Your task to perform on an android device: change alarm snooze length Image 0: 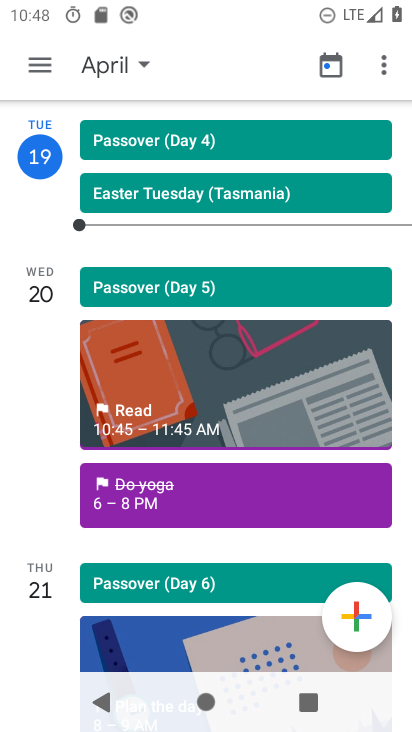
Step 0: press home button
Your task to perform on an android device: change alarm snooze length Image 1: 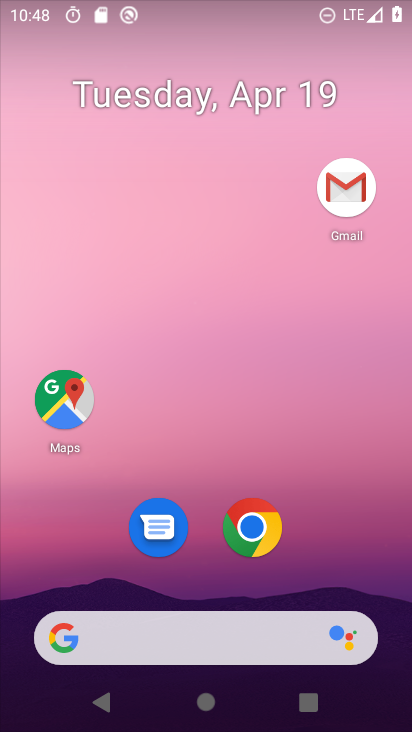
Step 1: drag from (342, 506) to (303, 31)
Your task to perform on an android device: change alarm snooze length Image 2: 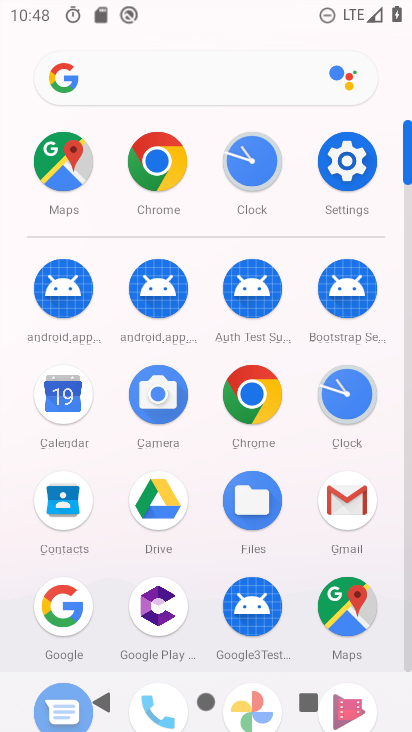
Step 2: click (343, 404)
Your task to perform on an android device: change alarm snooze length Image 3: 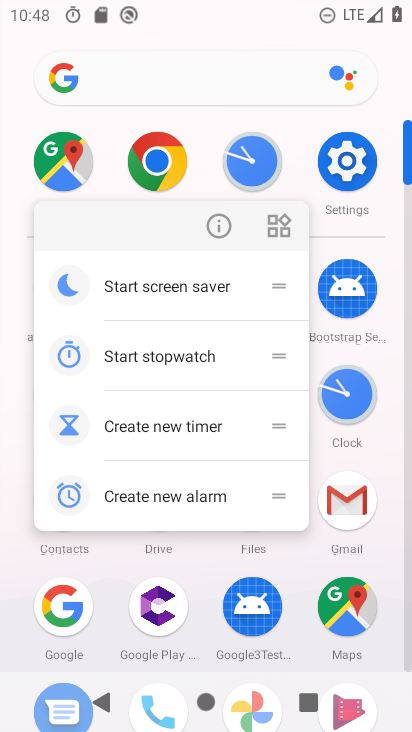
Step 3: click (343, 404)
Your task to perform on an android device: change alarm snooze length Image 4: 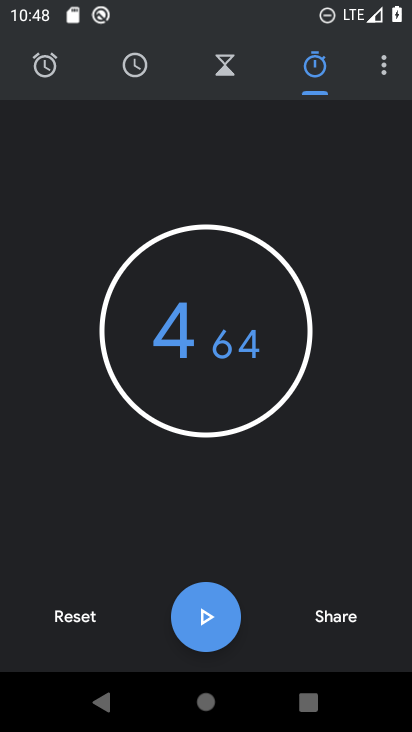
Step 4: click (387, 68)
Your task to perform on an android device: change alarm snooze length Image 5: 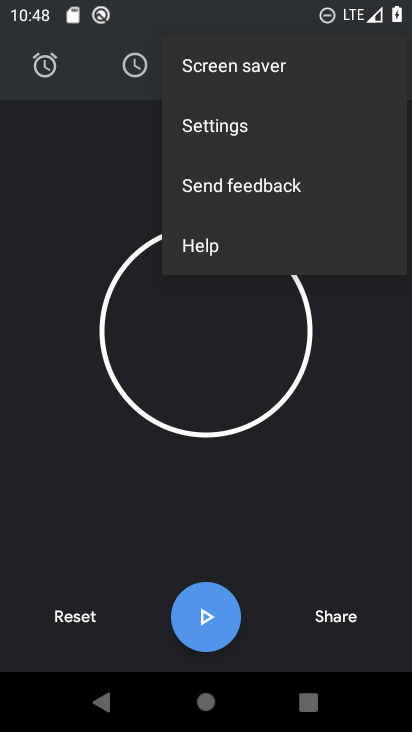
Step 5: click (234, 135)
Your task to perform on an android device: change alarm snooze length Image 6: 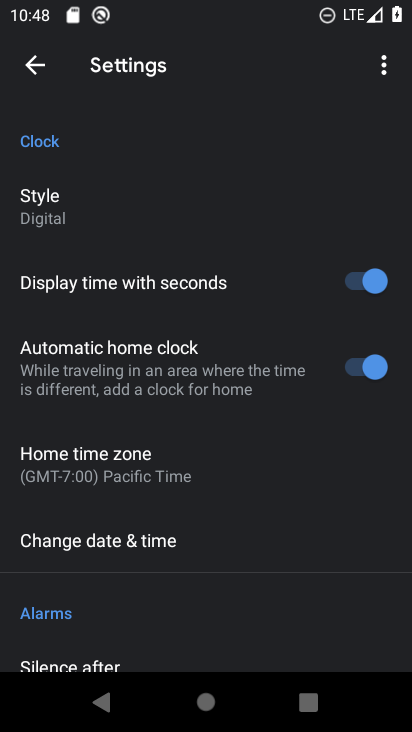
Step 6: drag from (266, 542) to (274, 226)
Your task to perform on an android device: change alarm snooze length Image 7: 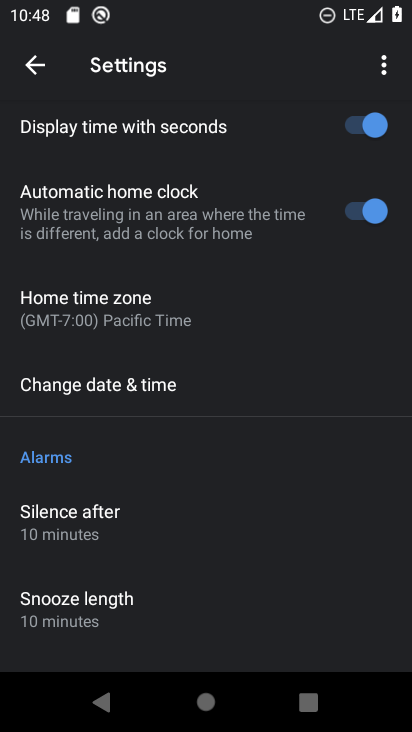
Step 7: click (127, 611)
Your task to perform on an android device: change alarm snooze length Image 8: 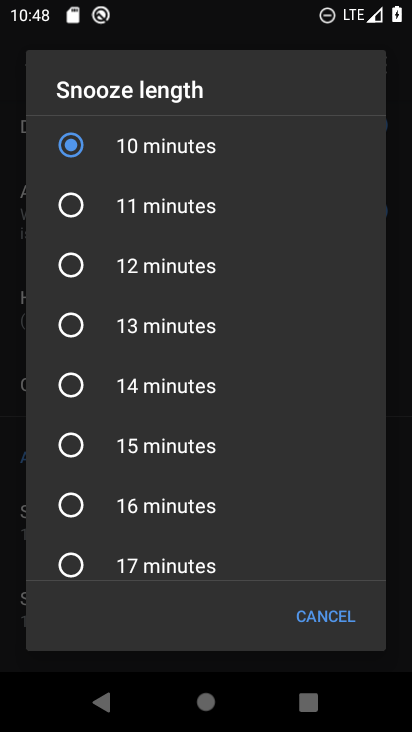
Step 8: click (181, 330)
Your task to perform on an android device: change alarm snooze length Image 9: 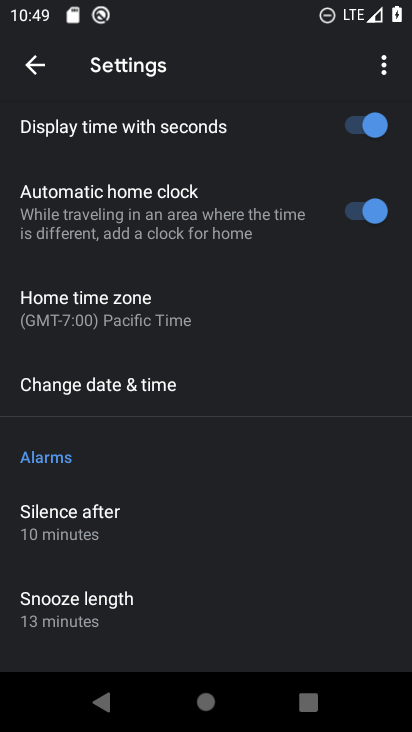
Step 9: task complete